Your task to perform on an android device: Clear the shopping cart on amazon. Add "apple airpods pro" to the cart on amazon, then select checkout. Image 0: 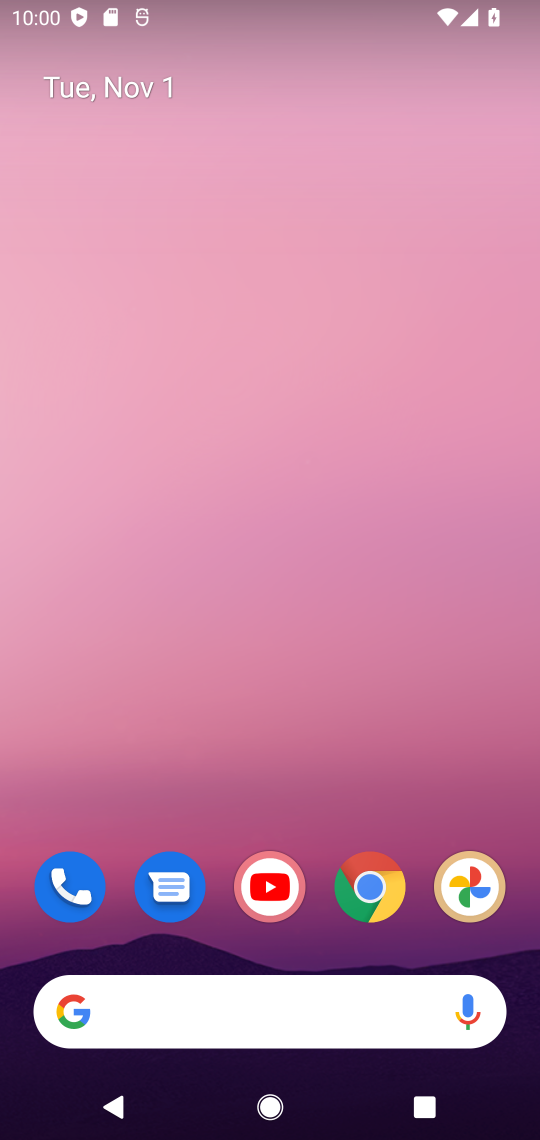
Step 0: click (375, 878)
Your task to perform on an android device: Clear the shopping cart on amazon. Add "apple airpods pro" to the cart on amazon, then select checkout. Image 1: 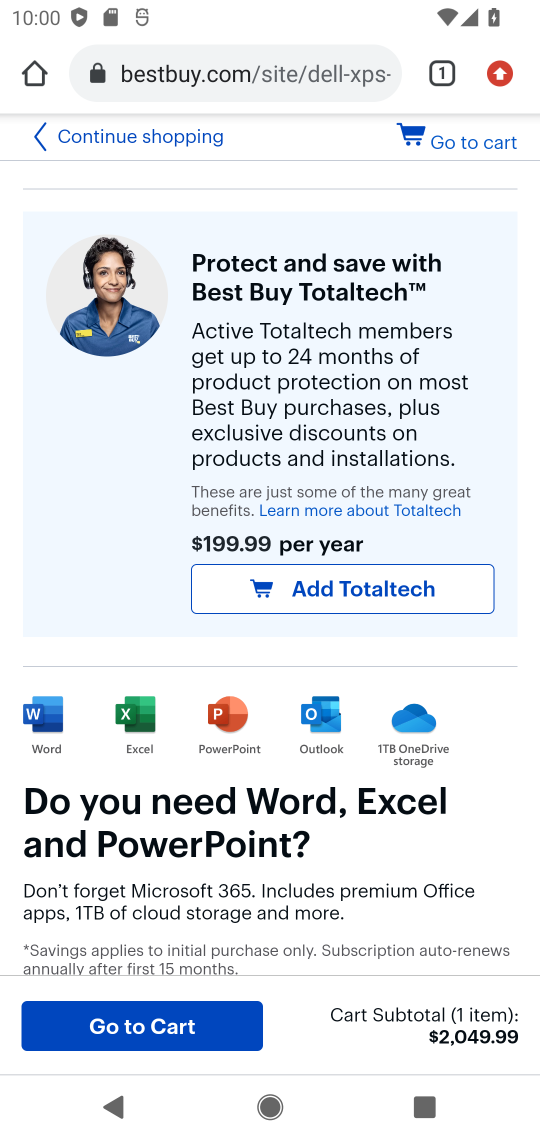
Step 1: click (333, 66)
Your task to perform on an android device: Clear the shopping cart on amazon. Add "apple airpods pro" to the cart on amazon, then select checkout. Image 2: 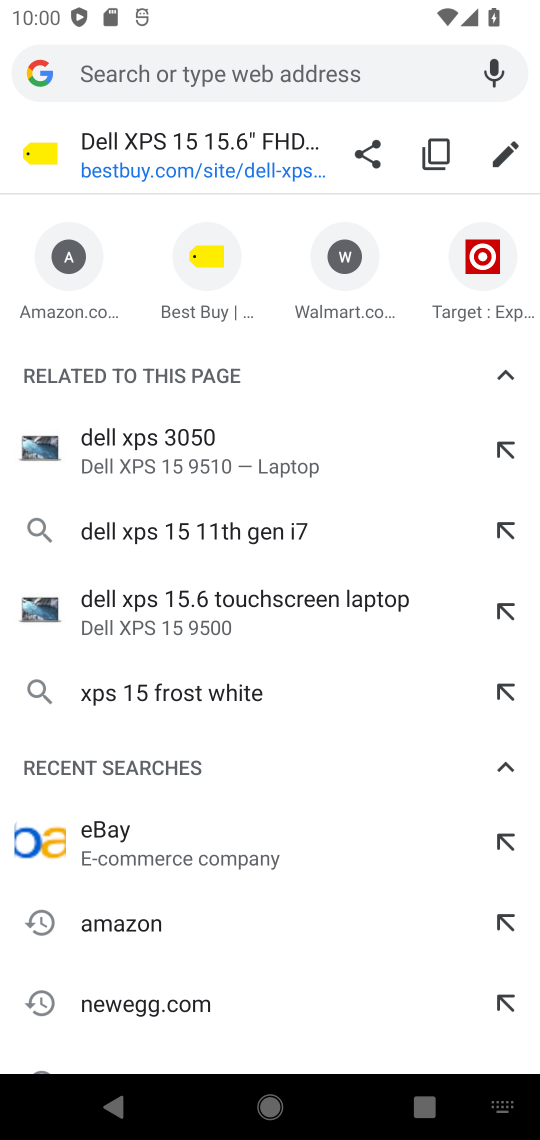
Step 2: press enter
Your task to perform on an android device: Clear the shopping cart on amazon. Add "apple airpods pro" to the cart on amazon, then select checkout. Image 3: 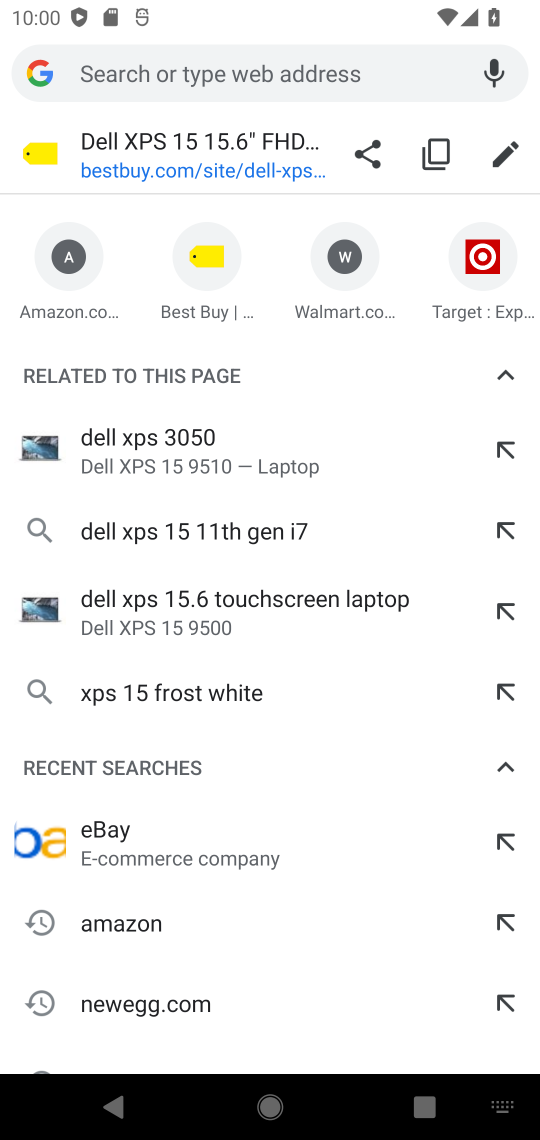
Step 3: type "amazon"
Your task to perform on an android device: Clear the shopping cart on amazon. Add "apple airpods pro" to the cart on amazon, then select checkout. Image 4: 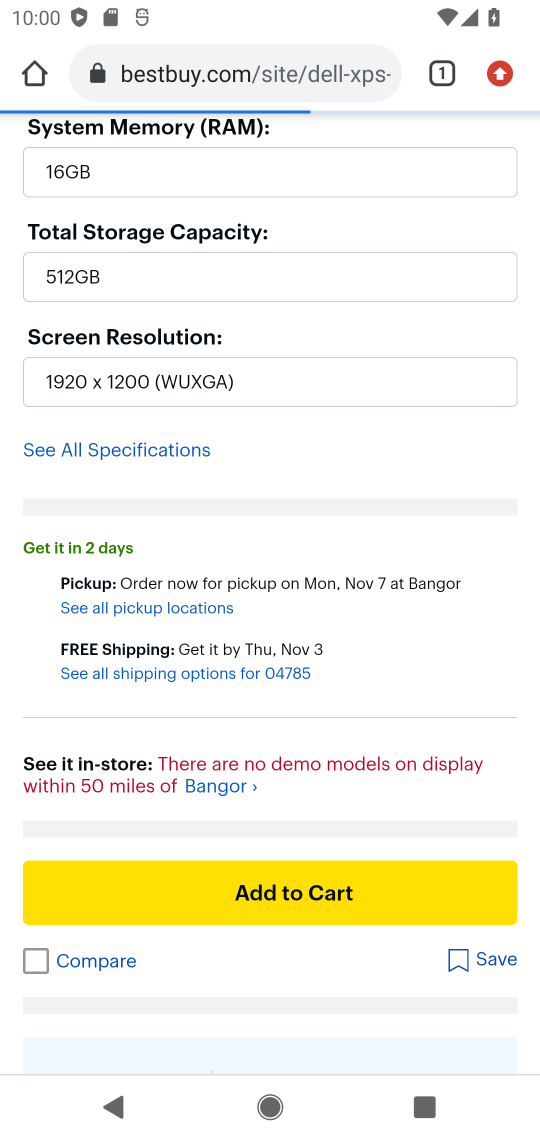
Step 4: click (287, 71)
Your task to perform on an android device: Clear the shopping cart on amazon. Add "apple airpods pro" to the cart on amazon, then select checkout. Image 5: 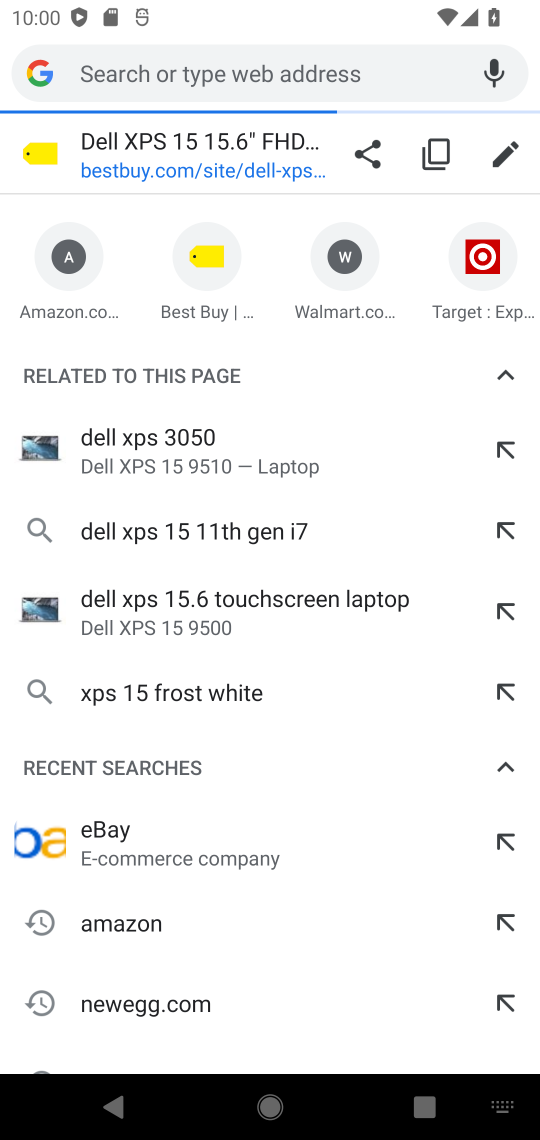
Step 5: click (114, 913)
Your task to perform on an android device: Clear the shopping cart on amazon. Add "apple airpods pro" to the cart on amazon, then select checkout. Image 6: 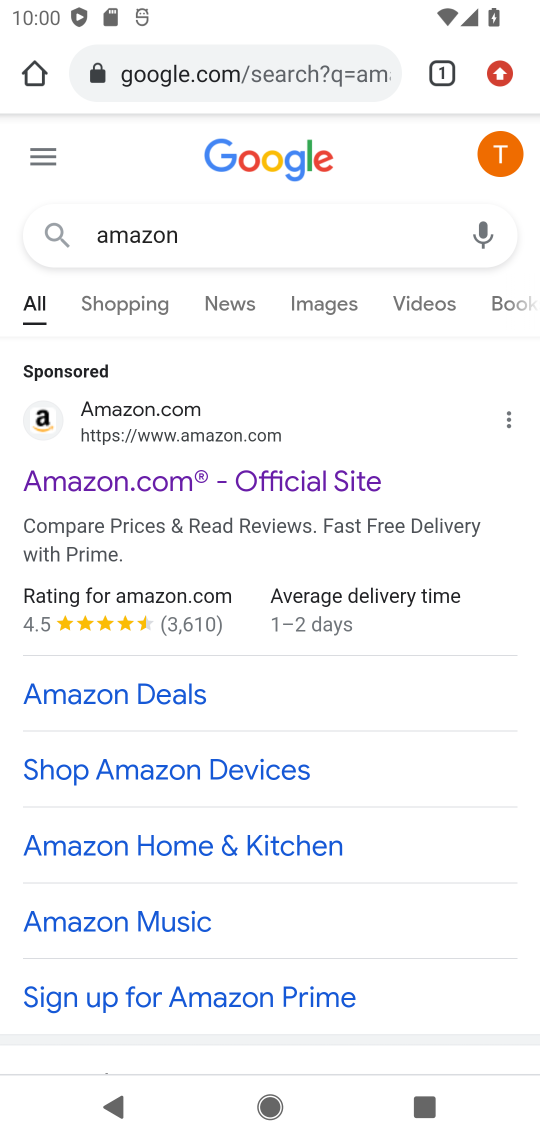
Step 6: click (148, 473)
Your task to perform on an android device: Clear the shopping cart on amazon. Add "apple airpods pro" to the cart on amazon, then select checkout. Image 7: 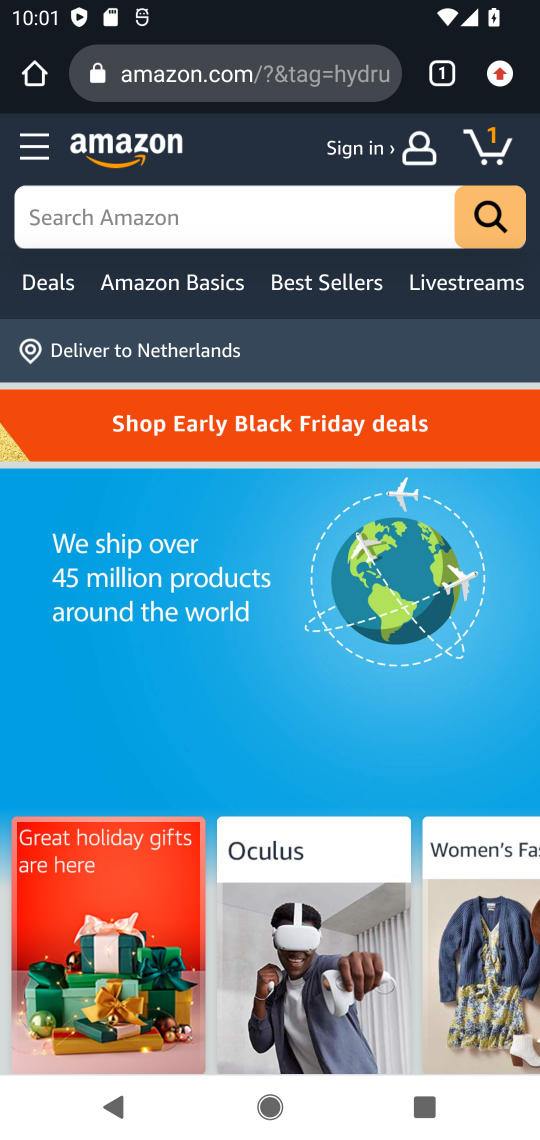
Step 7: click (484, 153)
Your task to perform on an android device: Clear the shopping cart on amazon. Add "apple airpods pro" to the cart on amazon, then select checkout. Image 8: 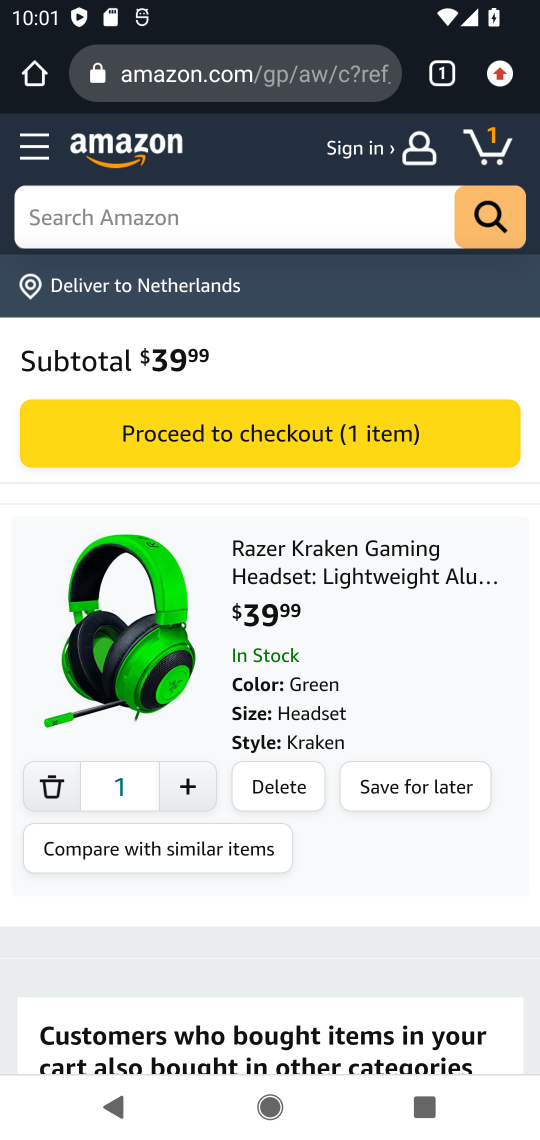
Step 8: click (279, 795)
Your task to perform on an android device: Clear the shopping cart on amazon. Add "apple airpods pro" to the cart on amazon, then select checkout. Image 9: 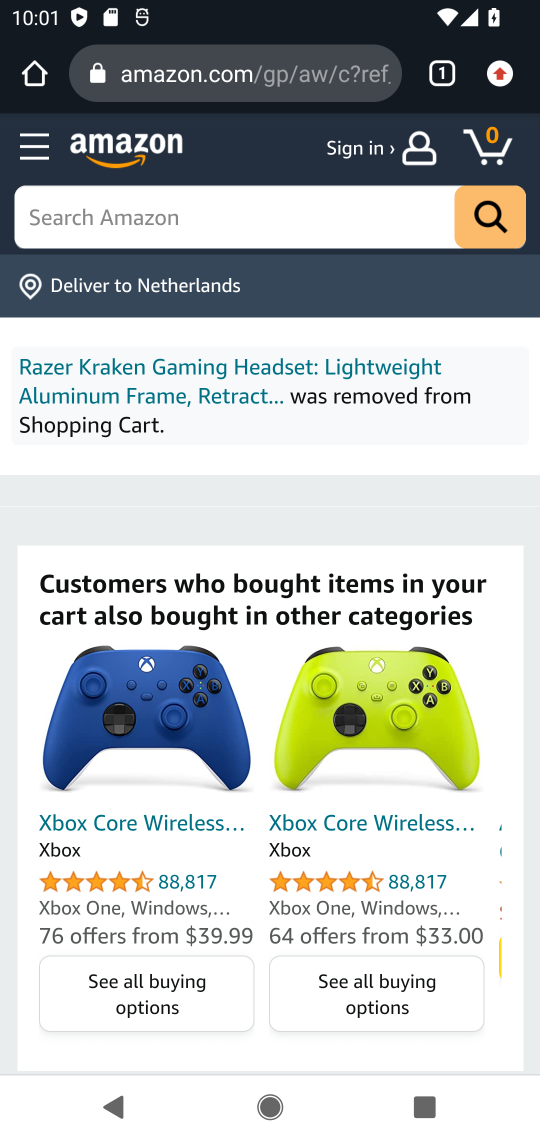
Step 9: click (300, 212)
Your task to perform on an android device: Clear the shopping cart on amazon. Add "apple airpods pro" to the cart on amazon, then select checkout. Image 10: 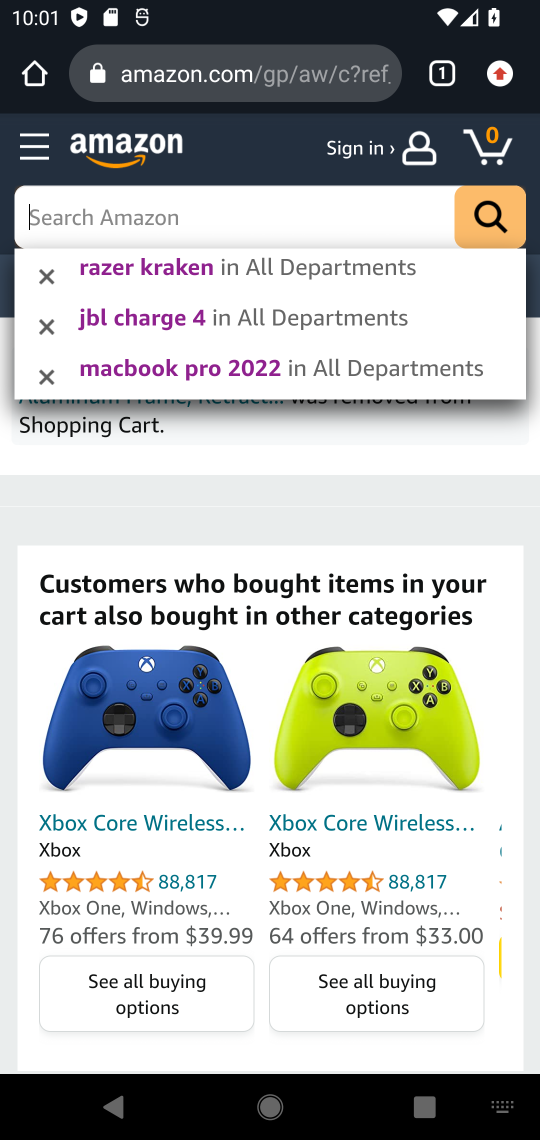
Step 10: type "apple airpods pro"
Your task to perform on an android device: Clear the shopping cart on amazon. Add "apple airpods pro" to the cart on amazon, then select checkout. Image 11: 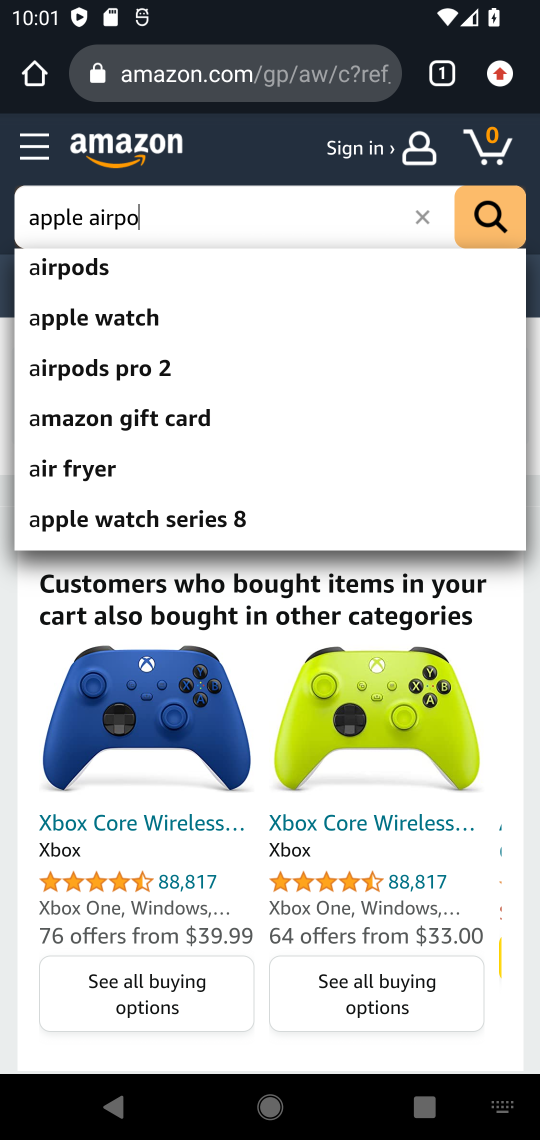
Step 11: press enter
Your task to perform on an android device: Clear the shopping cart on amazon. Add "apple airpods pro" to the cart on amazon, then select checkout. Image 12: 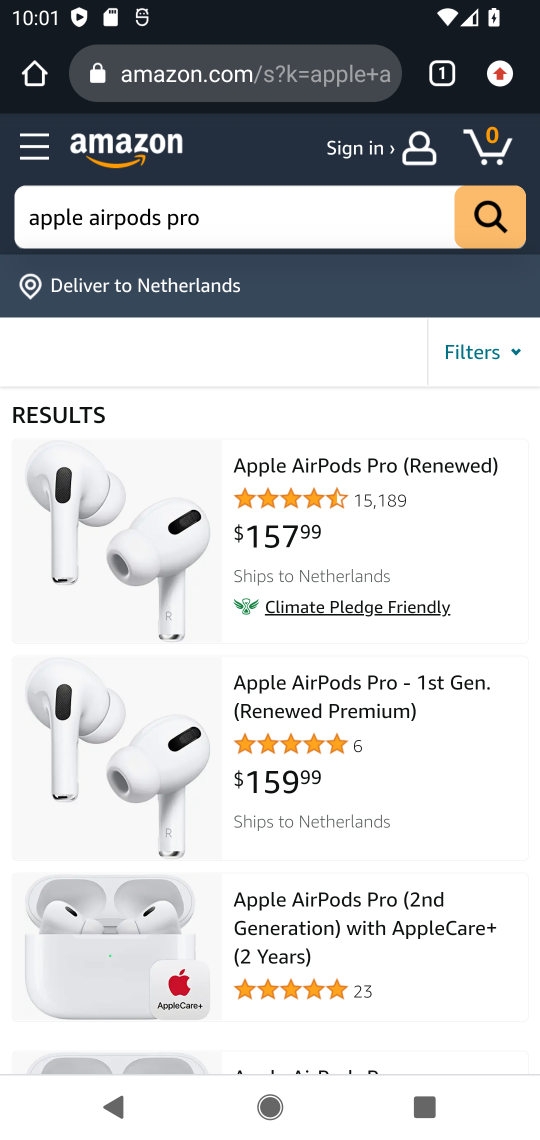
Step 12: click (82, 533)
Your task to perform on an android device: Clear the shopping cart on amazon. Add "apple airpods pro" to the cart on amazon, then select checkout. Image 13: 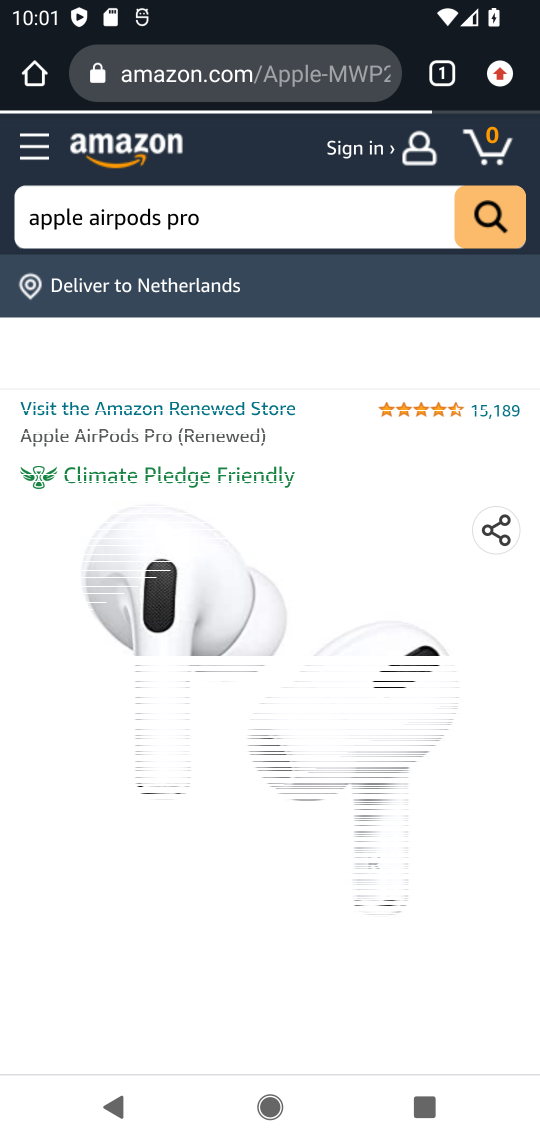
Step 13: drag from (371, 866) to (348, 400)
Your task to perform on an android device: Clear the shopping cart on amazon. Add "apple airpods pro" to the cart on amazon, then select checkout. Image 14: 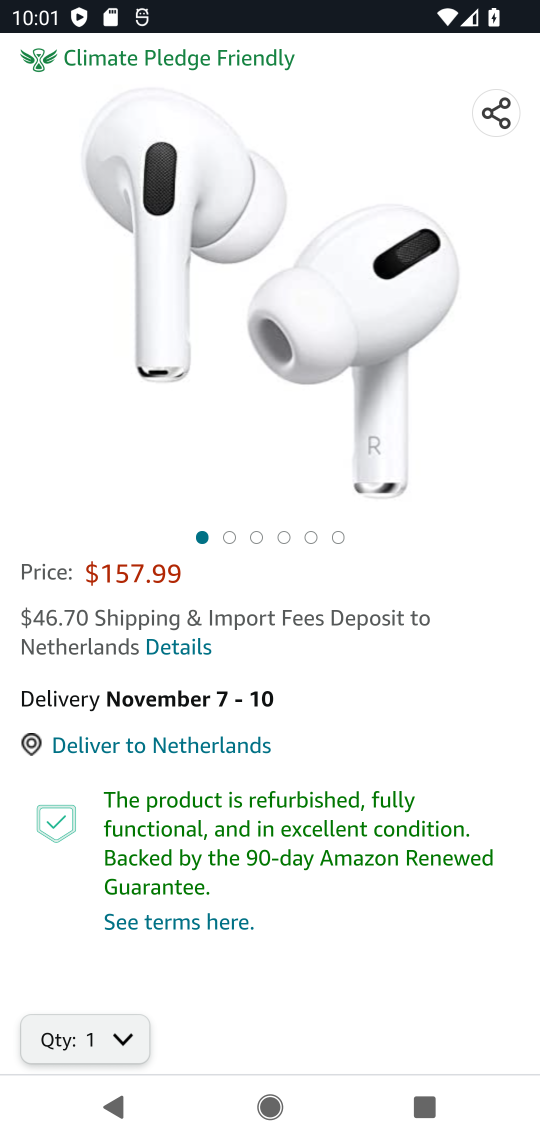
Step 14: click (323, 559)
Your task to perform on an android device: Clear the shopping cart on amazon. Add "apple airpods pro" to the cart on amazon, then select checkout. Image 15: 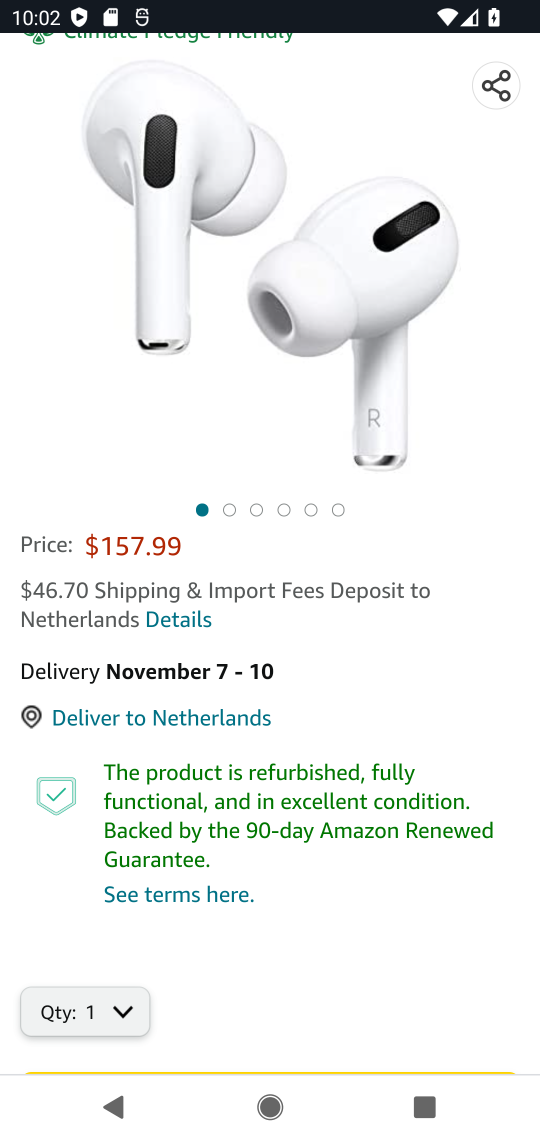
Step 15: drag from (350, 919) to (370, 489)
Your task to perform on an android device: Clear the shopping cart on amazon. Add "apple airpods pro" to the cart on amazon, then select checkout. Image 16: 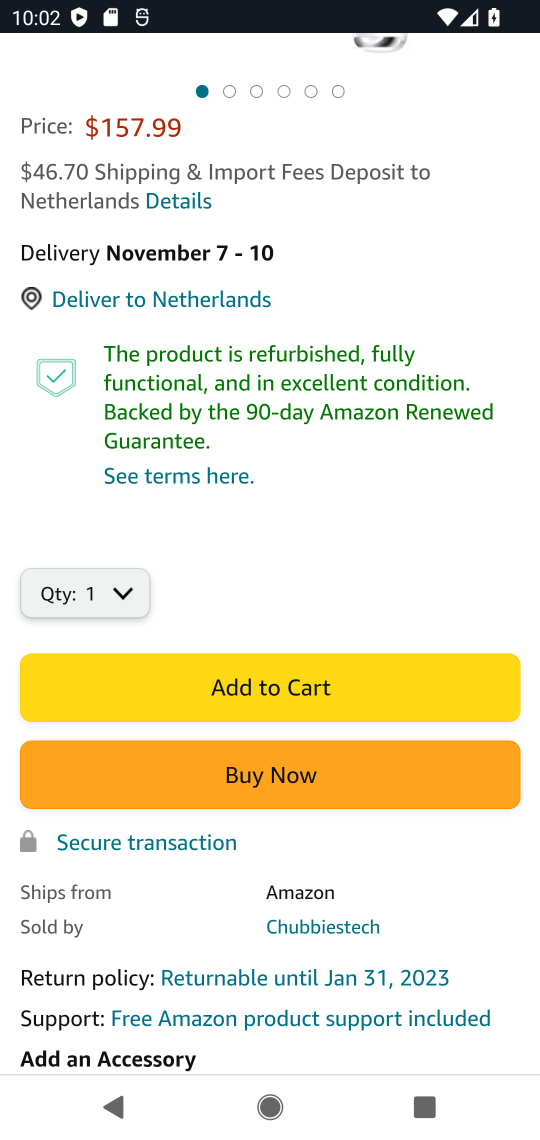
Step 16: click (372, 679)
Your task to perform on an android device: Clear the shopping cart on amazon. Add "apple airpods pro" to the cart on amazon, then select checkout. Image 17: 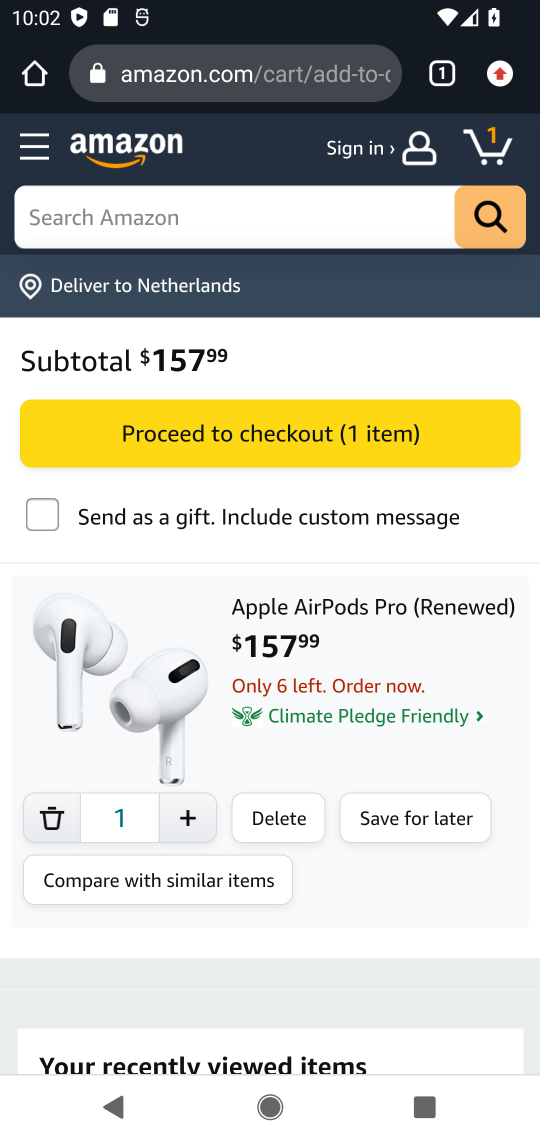
Step 17: click (244, 428)
Your task to perform on an android device: Clear the shopping cart on amazon. Add "apple airpods pro" to the cart on amazon, then select checkout. Image 18: 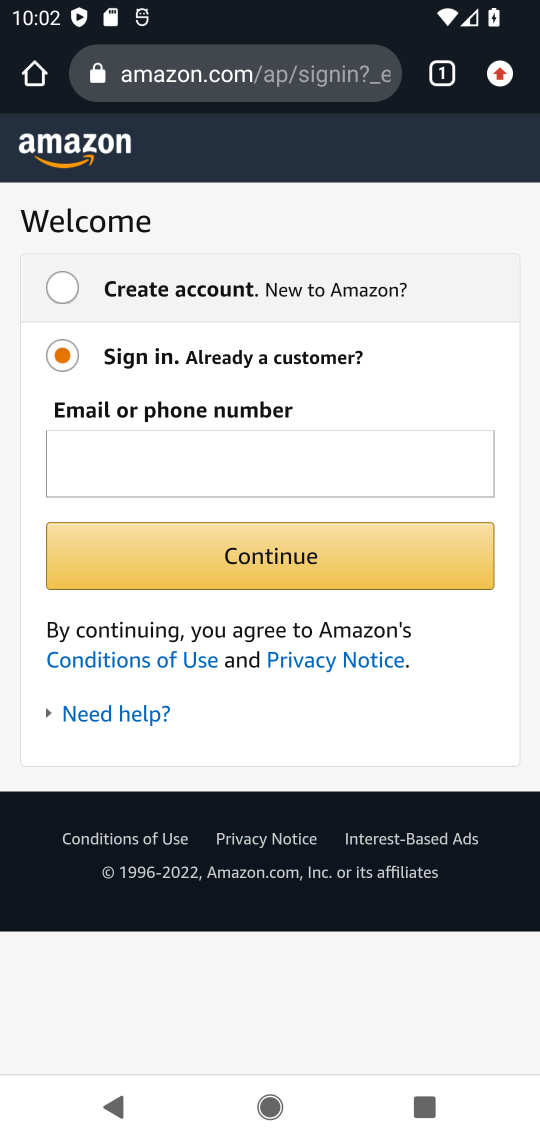
Step 18: task complete